Your task to perform on an android device: When is my next appointment? Image 0: 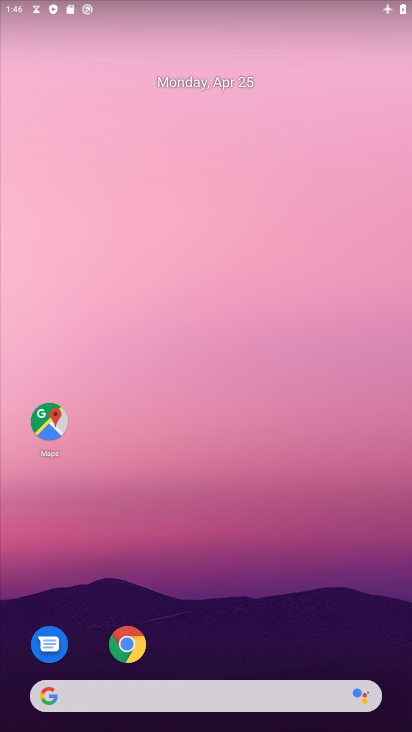
Step 0: drag from (367, 641) to (366, 49)
Your task to perform on an android device: When is my next appointment? Image 1: 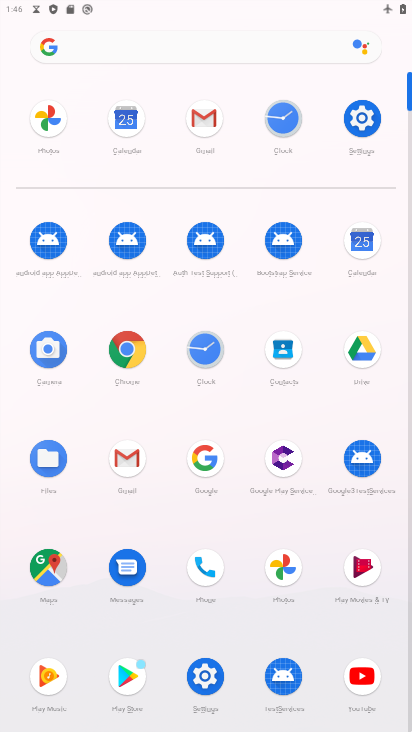
Step 1: click (123, 122)
Your task to perform on an android device: When is my next appointment? Image 2: 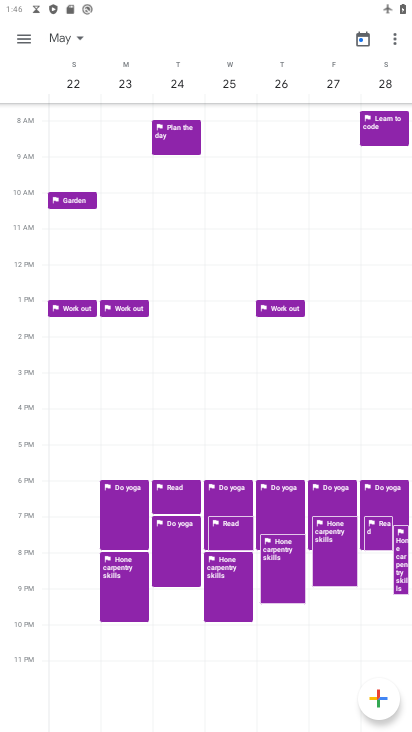
Step 2: drag from (113, 342) to (394, 362)
Your task to perform on an android device: When is my next appointment? Image 3: 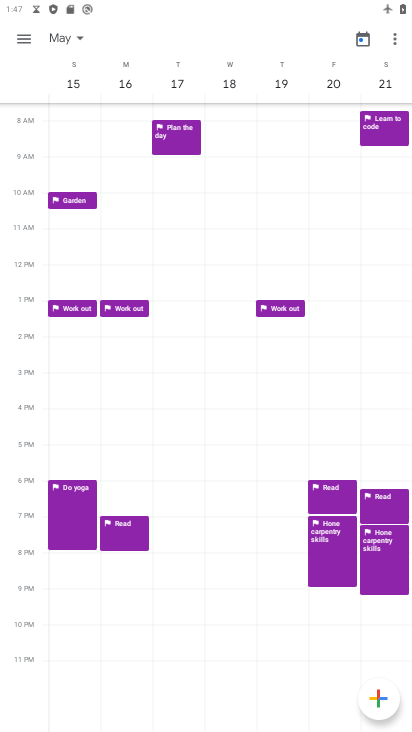
Step 3: click (78, 39)
Your task to perform on an android device: When is my next appointment? Image 4: 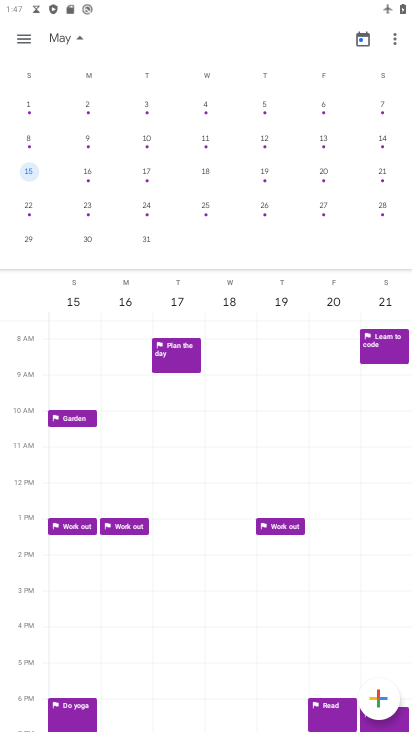
Step 4: drag from (49, 148) to (406, 159)
Your task to perform on an android device: When is my next appointment? Image 5: 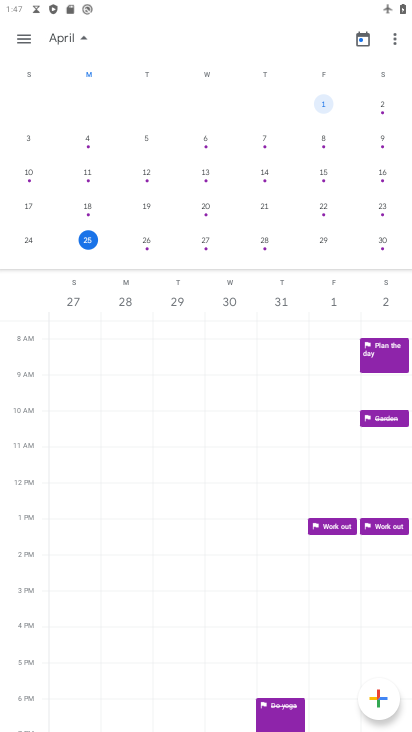
Step 5: click (147, 240)
Your task to perform on an android device: When is my next appointment? Image 6: 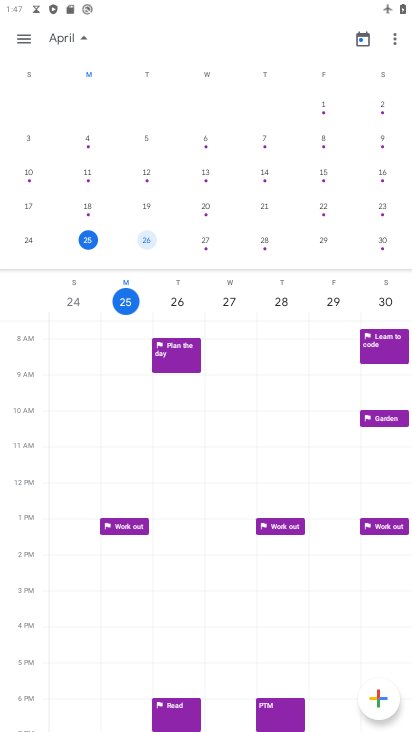
Step 6: click (16, 44)
Your task to perform on an android device: When is my next appointment? Image 7: 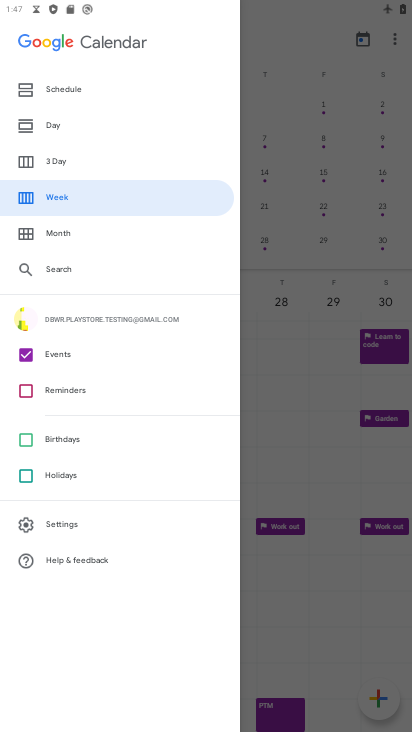
Step 7: click (44, 87)
Your task to perform on an android device: When is my next appointment? Image 8: 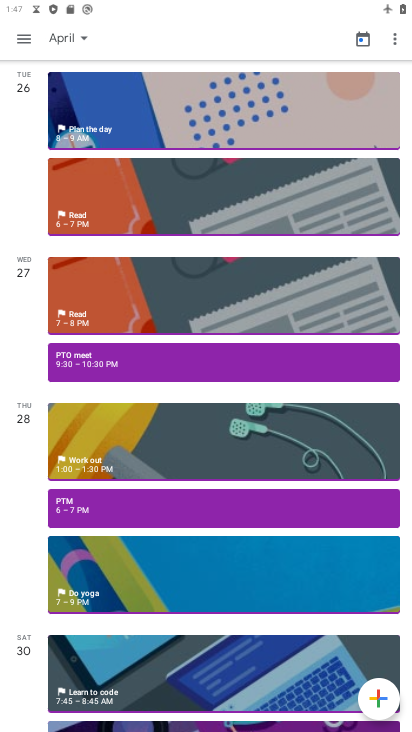
Step 8: click (149, 369)
Your task to perform on an android device: When is my next appointment? Image 9: 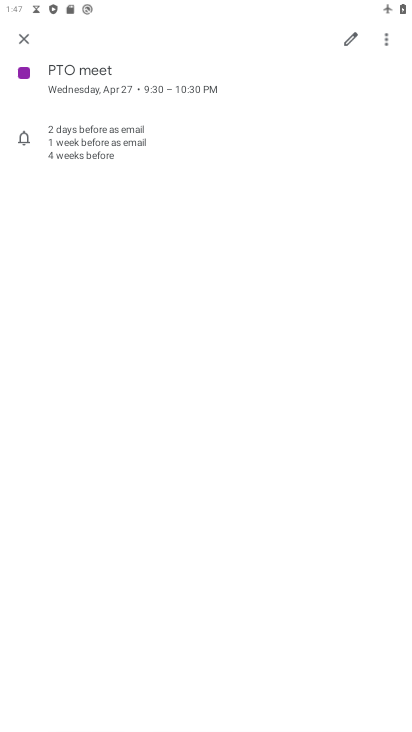
Step 9: task complete